Your task to perform on an android device: Go to ESPN.com Image 0: 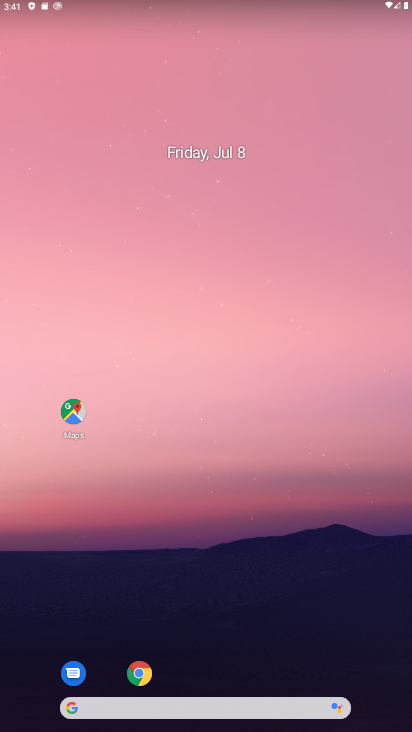
Step 0: click (137, 677)
Your task to perform on an android device: Go to ESPN.com Image 1: 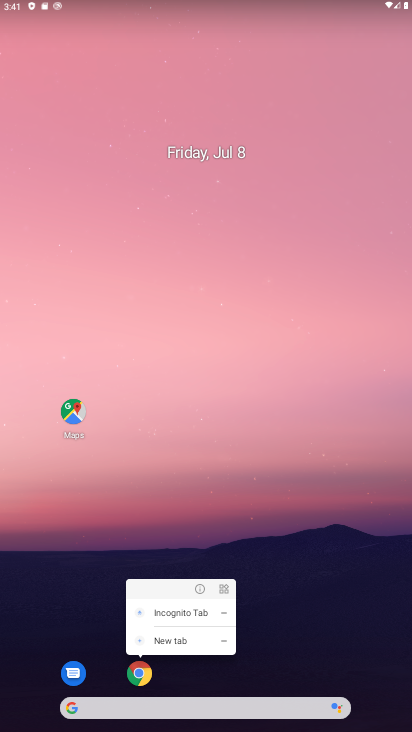
Step 1: click (137, 676)
Your task to perform on an android device: Go to ESPN.com Image 2: 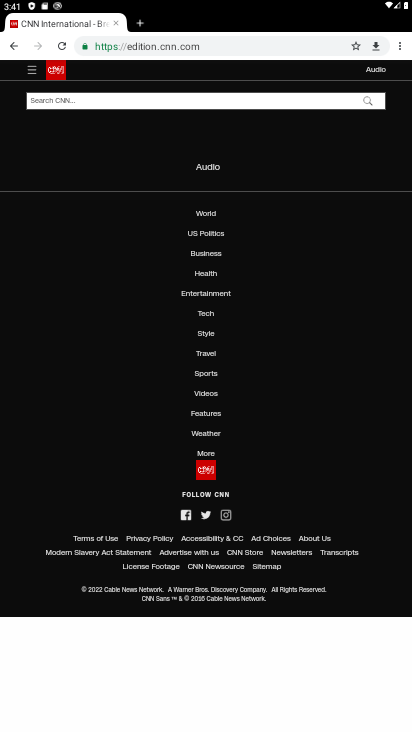
Step 2: click (15, 46)
Your task to perform on an android device: Go to ESPN.com Image 3: 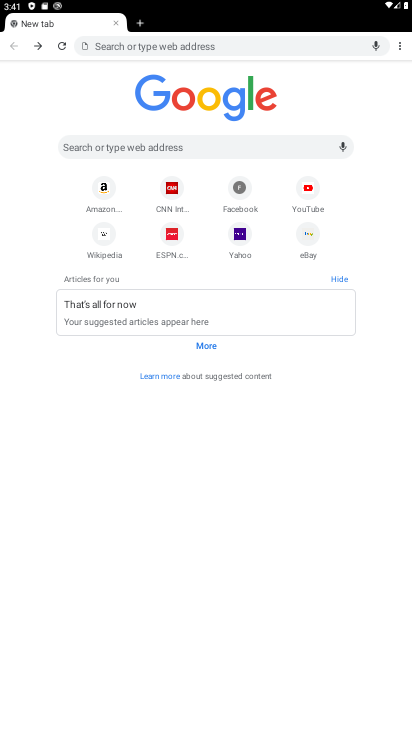
Step 3: click (173, 235)
Your task to perform on an android device: Go to ESPN.com Image 4: 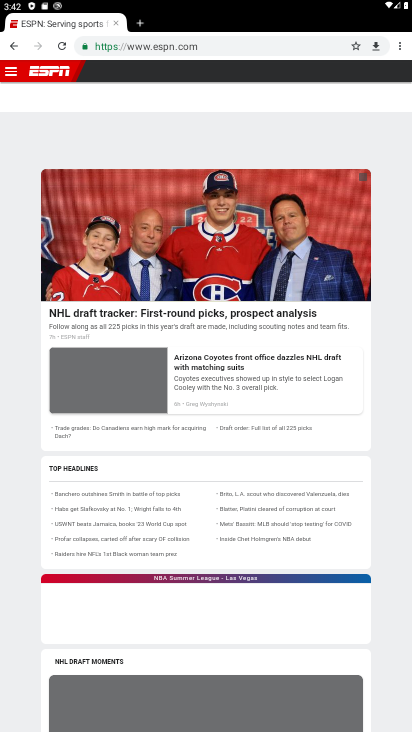
Step 4: task complete